Your task to perform on an android device: set default search engine in the chrome app Image 0: 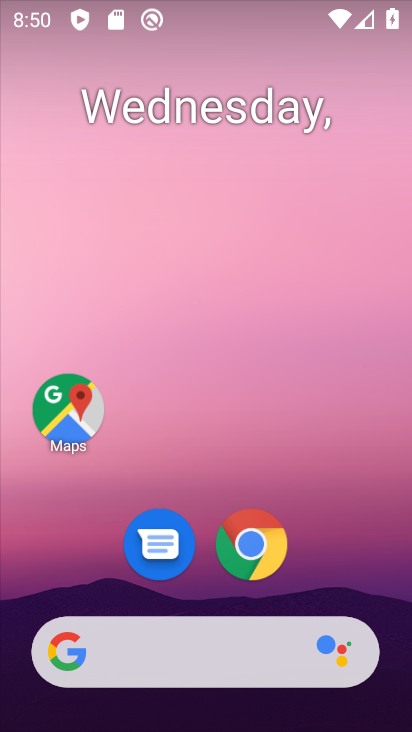
Step 0: drag from (192, 641) to (290, 78)
Your task to perform on an android device: set default search engine in the chrome app Image 1: 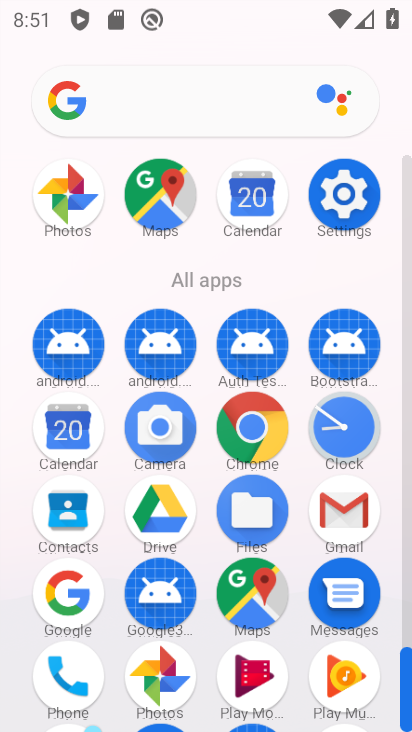
Step 1: click (243, 445)
Your task to perform on an android device: set default search engine in the chrome app Image 2: 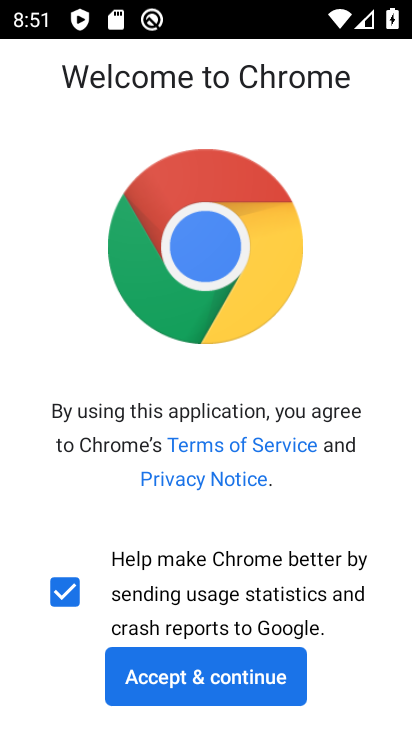
Step 2: click (228, 671)
Your task to perform on an android device: set default search engine in the chrome app Image 3: 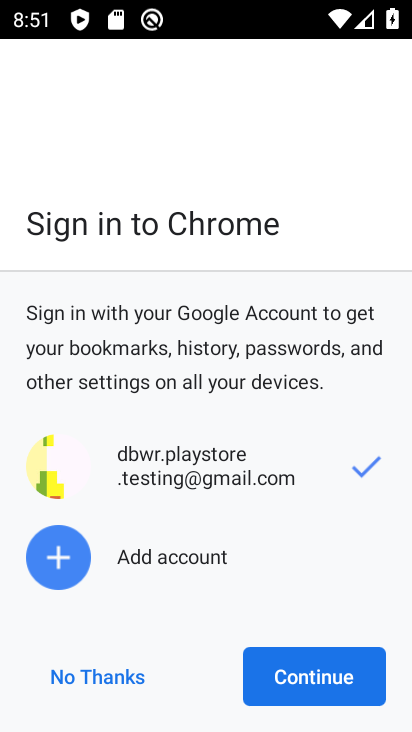
Step 3: click (279, 673)
Your task to perform on an android device: set default search engine in the chrome app Image 4: 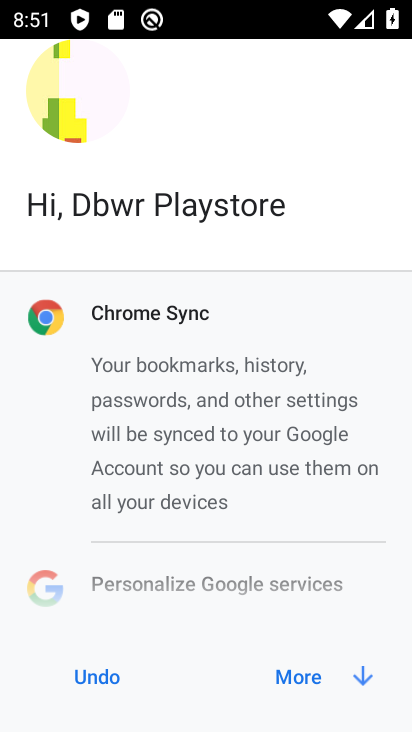
Step 4: click (300, 675)
Your task to perform on an android device: set default search engine in the chrome app Image 5: 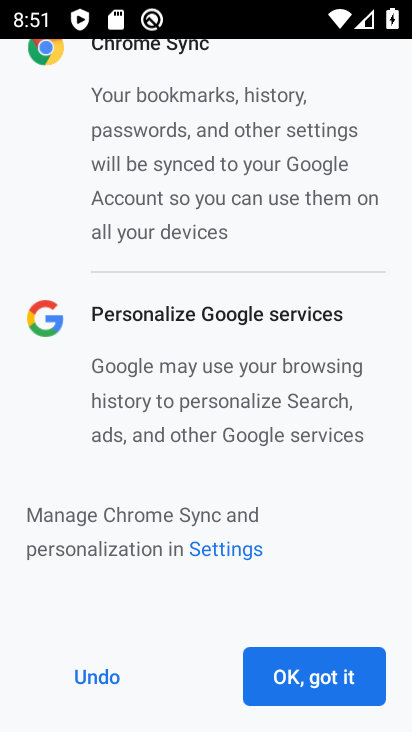
Step 5: click (297, 674)
Your task to perform on an android device: set default search engine in the chrome app Image 6: 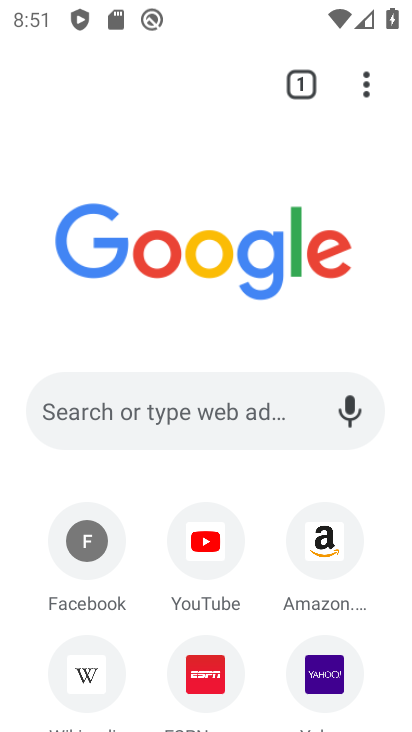
Step 6: click (362, 93)
Your task to perform on an android device: set default search engine in the chrome app Image 7: 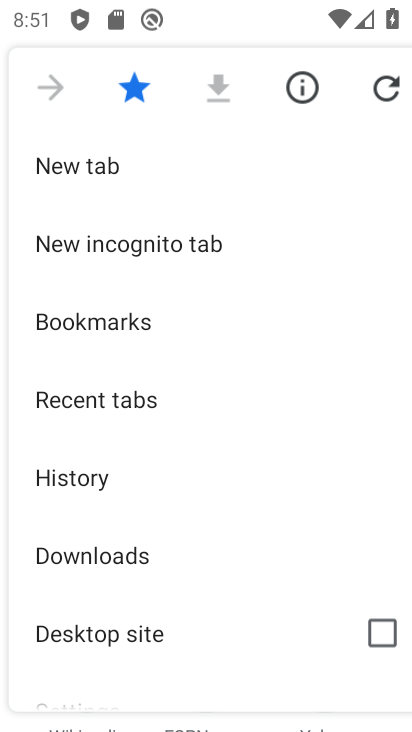
Step 7: drag from (215, 558) to (313, 140)
Your task to perform on an android device: set default search engine in the chrome app Image 8: 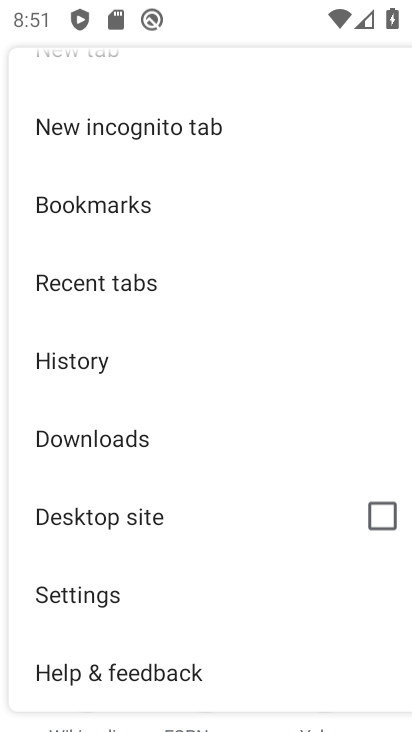
Step 8: click (84, 599)
Your task to perform on an android device: set default search engine in the chrome app Image 9: 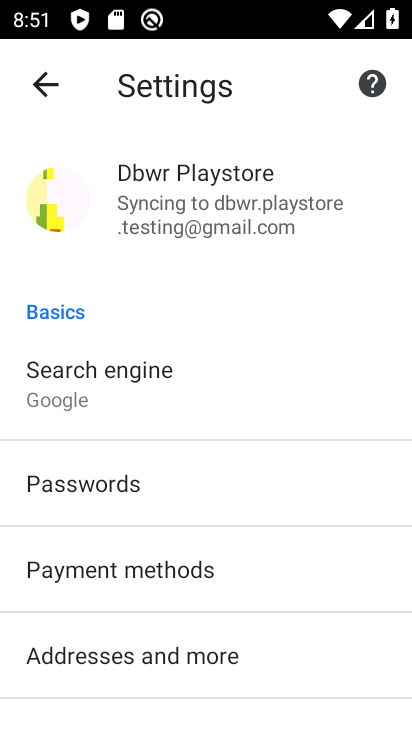
Step 9: click (101, 386)
Your task to perform on an android device: set default search engine in the chrome app Image 10: 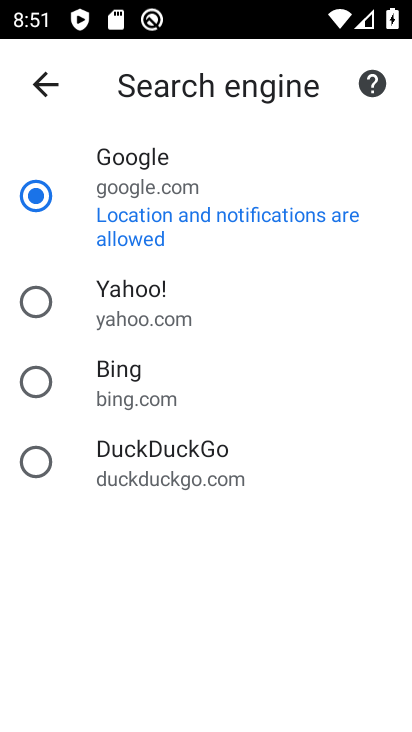
Step 10: click (41, 294)
Your task to perform on an android device: set default search engine in the chrome app Image 11: 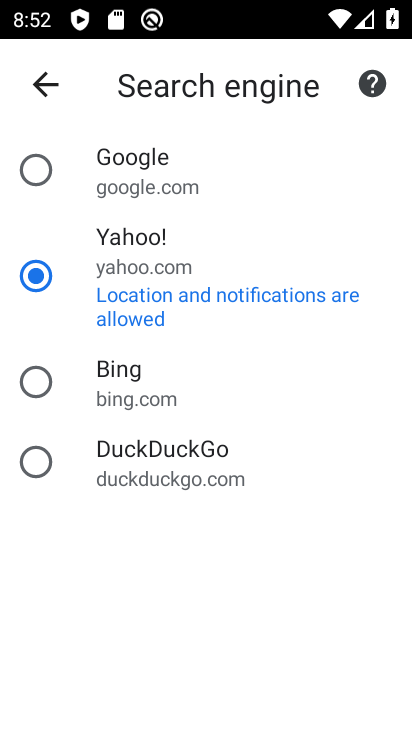
Step 11: task complete